Your task to perform on an android device: turn smart compose on in the gmail app Image 0: 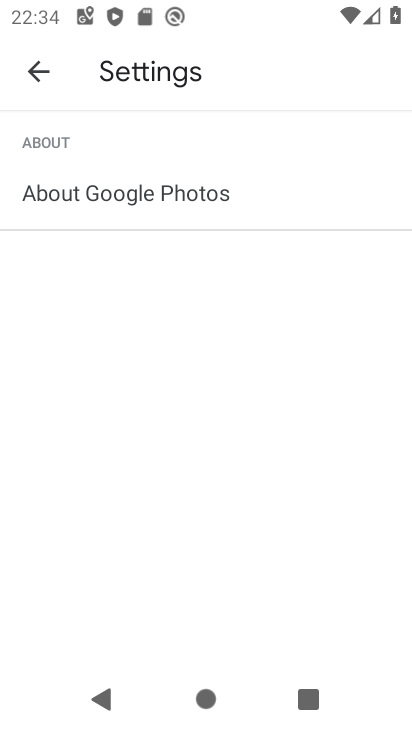
Step 0: press home button
Your task to perform on an android device: turn smart compose on in the gmail app Image 1: 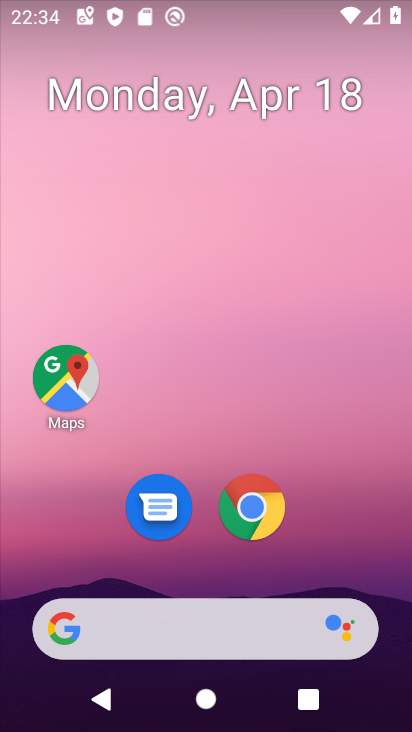
Step 1: drag from (294, 464) to (351, 123)
Your task to perform on an android device: turn smart compose on in the gmail app Image 2: 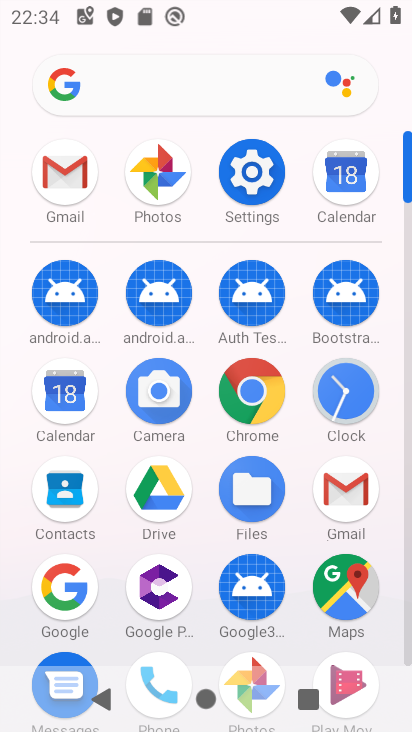
Step 2: click (66, 172)
Your task to perform on an android device: turn smart compose on in the gmail app Image 3: 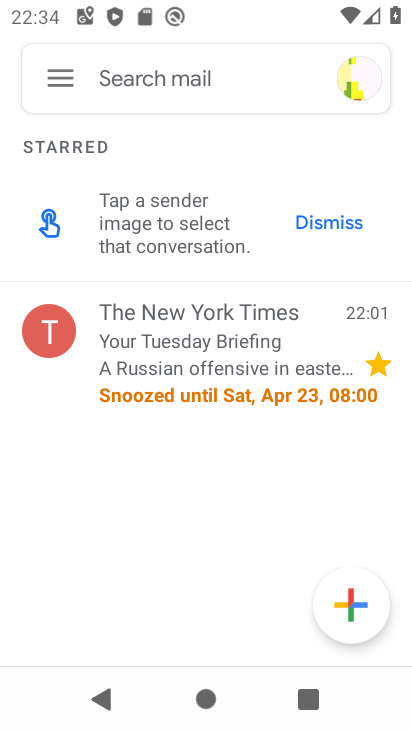
Step 3: click (62, 75)
Your task to perform on an android device: turn smart compose on in the gmail app Image 4: 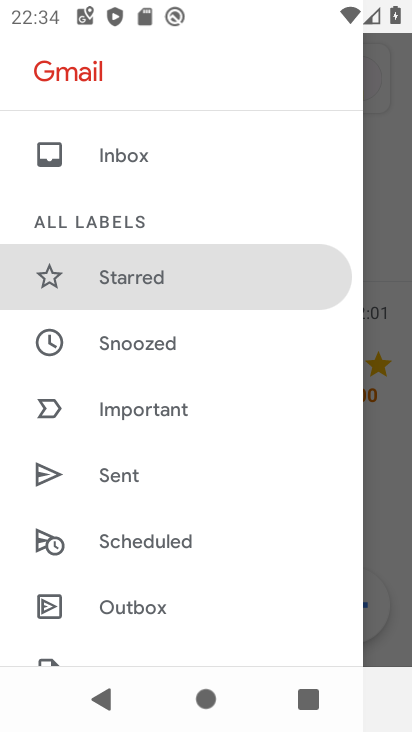
Step 4: drag from (208, 597) to (266, 173)
Your task to perform on an android device: turn smart compose on in the gmail app Image 5: 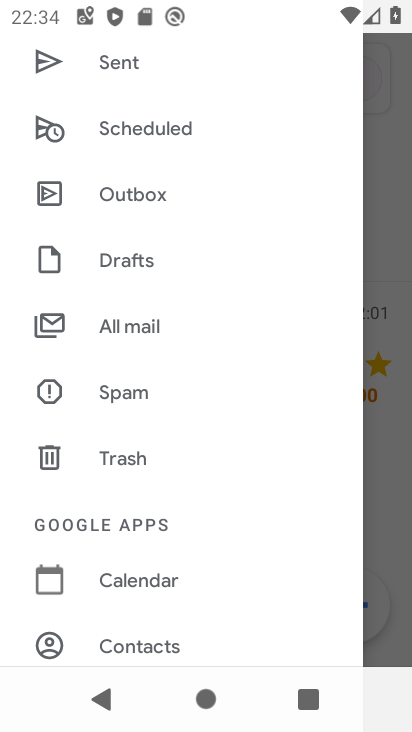
Step 5: drag from (198, 541) to (222, 158)
Your task to perform on an android device: turn smart compose on in the gmail app Image 6: 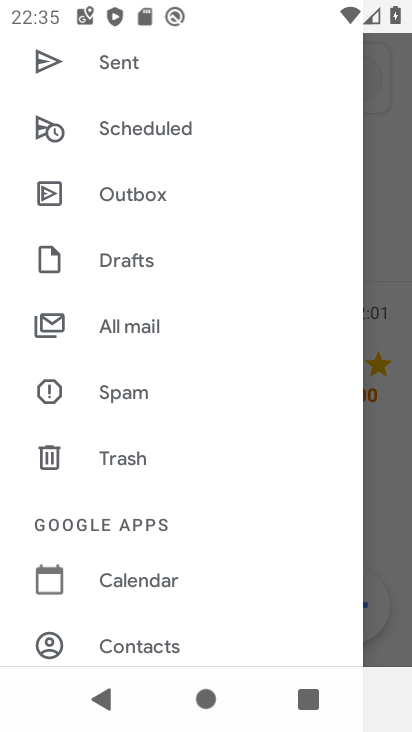
Step 6: drag from (211, 546) to (239, 210)
Your task to perform on an android device: turn smart compose on in the gmail app Image 7: 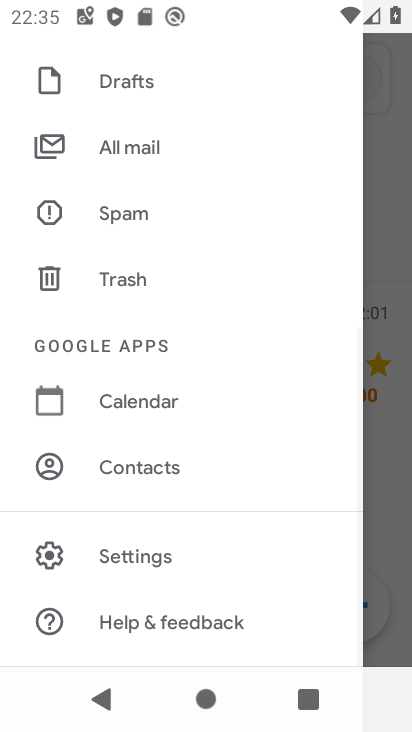
Step 7: click (166, 553)
Your task to perform on an android device: turn smart compose on in the gmail app Image 8: 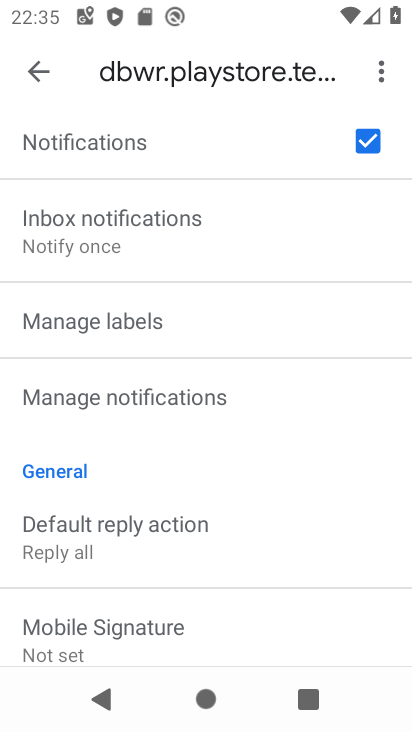
Step 8: task complete